Your task to perform on an android device: open a bookmark in the chrome app Image 0: 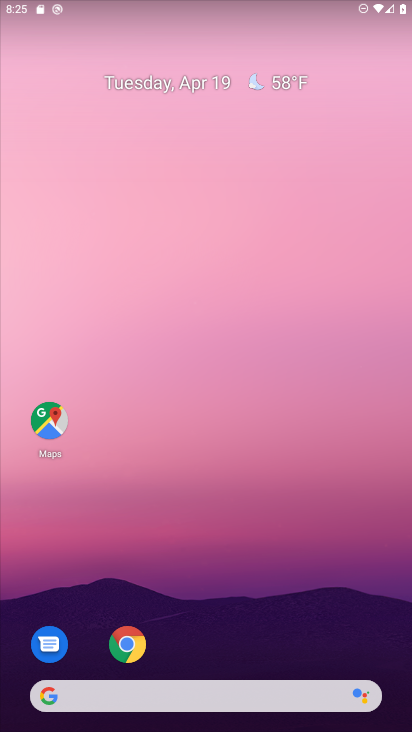
Step 0: click (130, 647)
Your task to perform on an android device: open a bookmark in the chrome app Image 1: 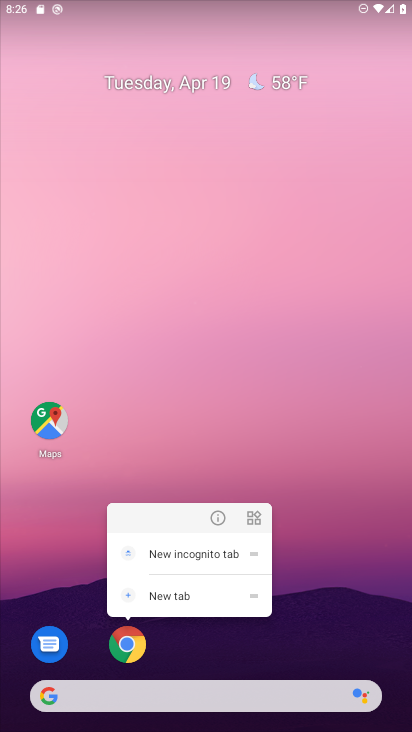
Step 1: click (129, 643)
Your task to perform on an android device: open a bookmark in the chrome app Image 2: 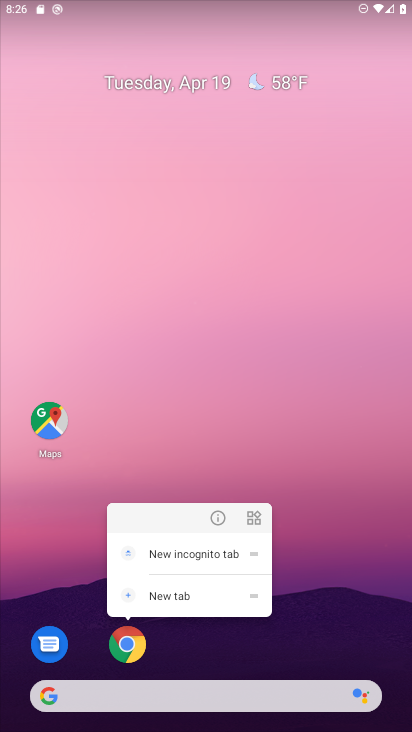
Step 2: click (121, 646)
Your task to perform on an android device: open a bookmark in the chrome app Image 3: 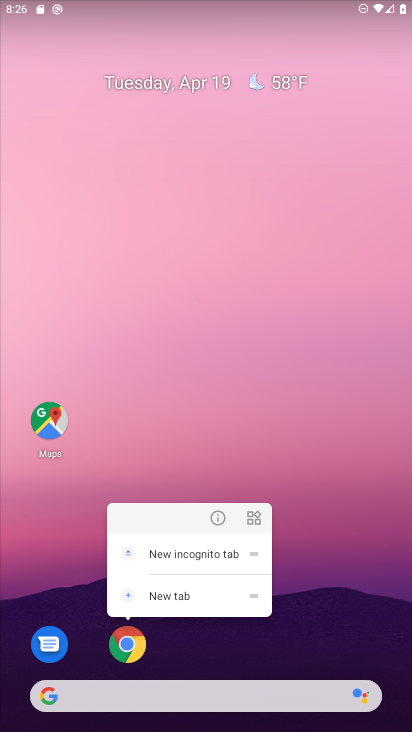
Step 3: click (127, 639)
Your task to perform on an android device: open a bookmark in the chrome app Image 4: 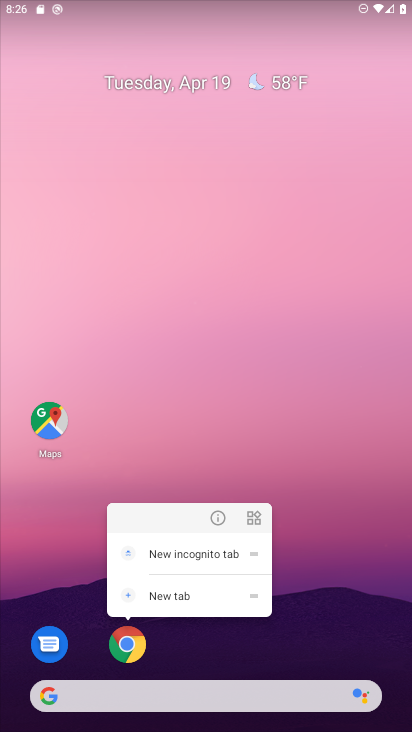
Step 4: click (221, 522)
Your task to perform on an android device: open a bookmark in the chrome app Image 5: 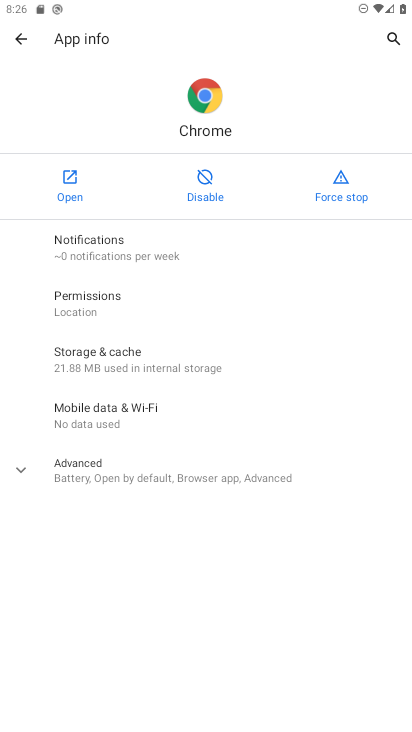
Step 5: click (64, 199)
Your task to perform on an android device: open a bookmark in the chrome app Image 6: 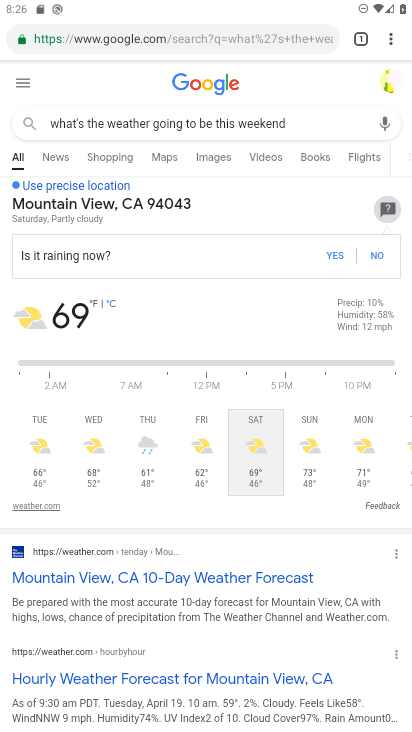
Step 6: click (390, 35)
Your task to perform on an android device: open a bookmark in the chrome app Image 7: 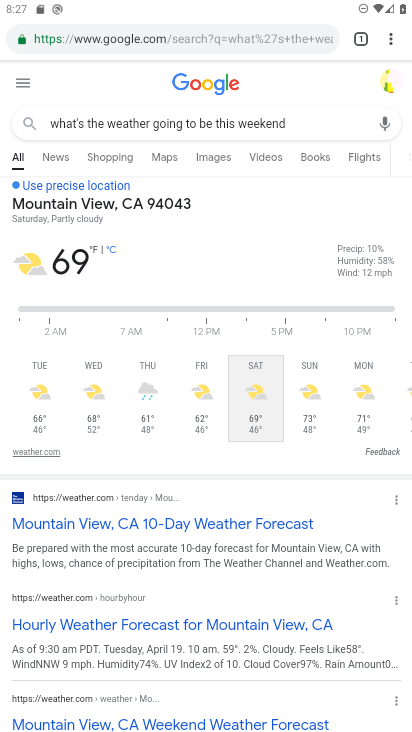
Step 7: click (383, 40)
Your task to perform on an android device: open a bookmark in the chrome app Image 8: 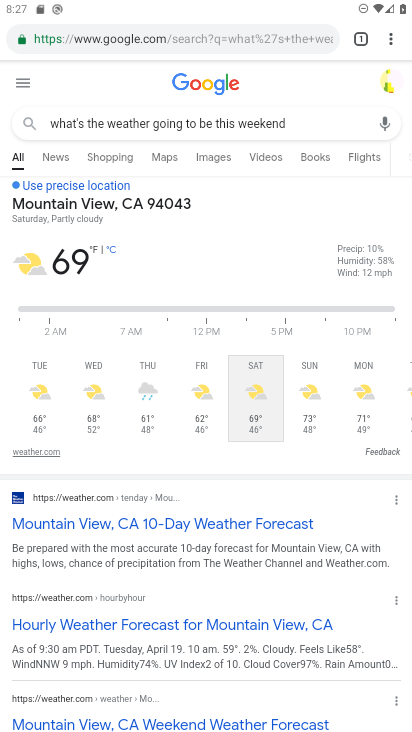
Step 8: click (390, 35)
Your task to perform on an android device: open a bookmark in the chrome app Image 9: 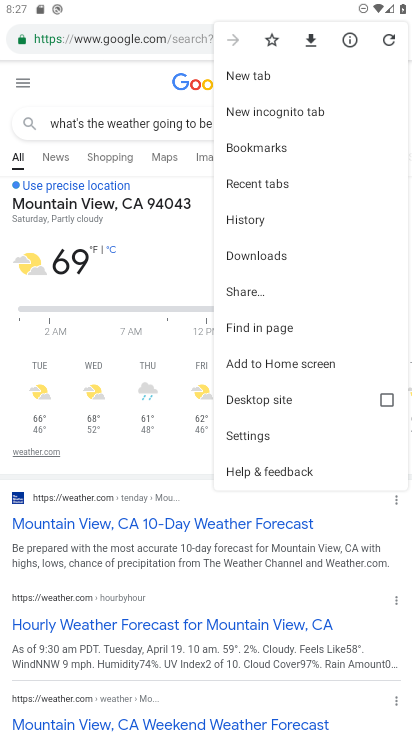
Step 9: click (276, 147)
Your task to perform on an android device: open a bookmark in the chrome app Image 10: 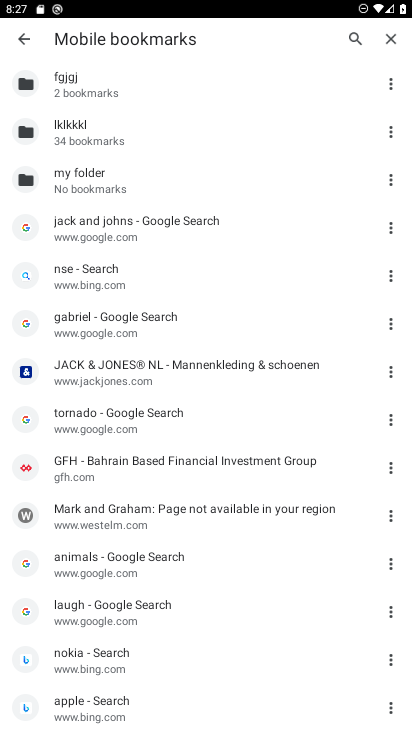
Step 10: task complete